Your task to perform on an android device: Go to Amazon Image 0: 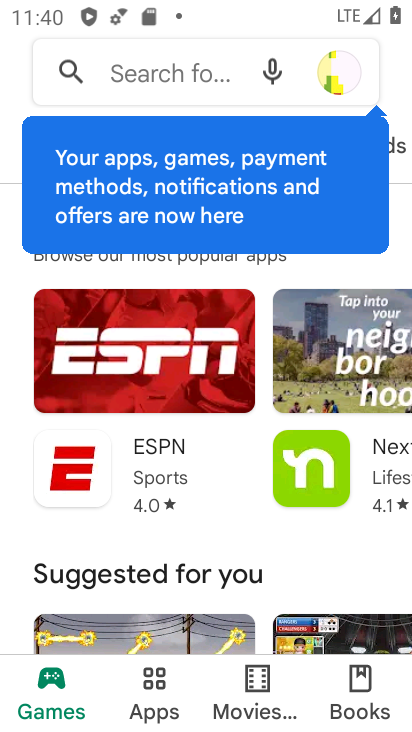
Step 0: press home button
Your task to perform on an android device: Go to Amazon Image 1: 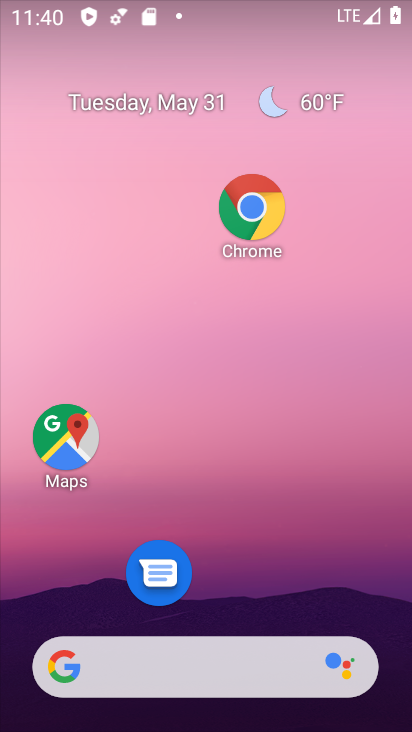
Step 1: click (273, 217)
Your task to perform on an android device: Go to Amazon Image 2: 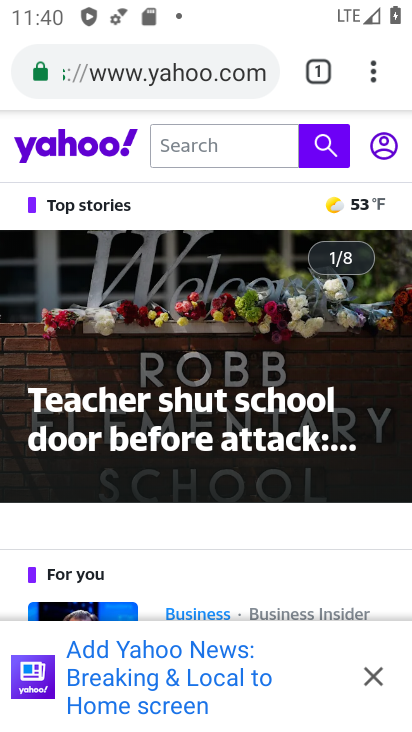
Step 2: click (326, 80)
Your task to perform on an android device: Go to Amazon Image 3: 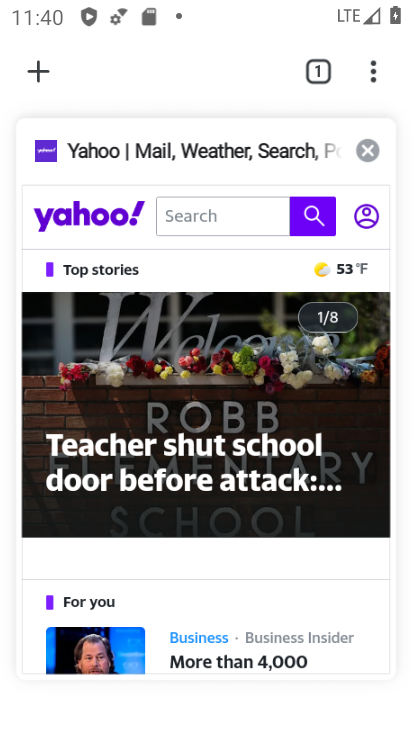
Step 3: click (40, 67)
Your task to perform on an android device: Go to Amazon Image 4: 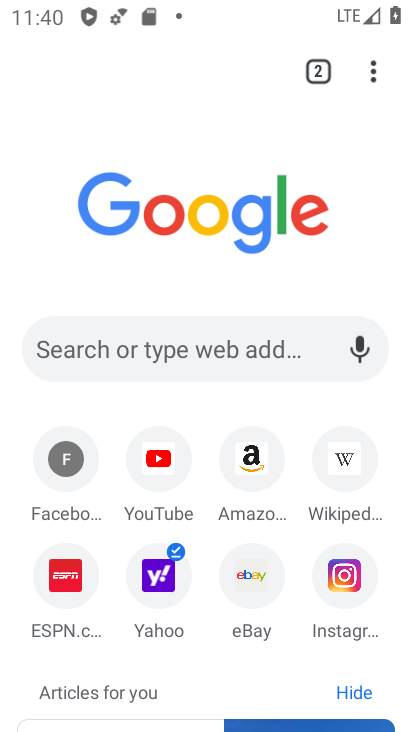
Step 4: click (249, 478)
Your task to perform on an android device: Go to Amazon Image 5: 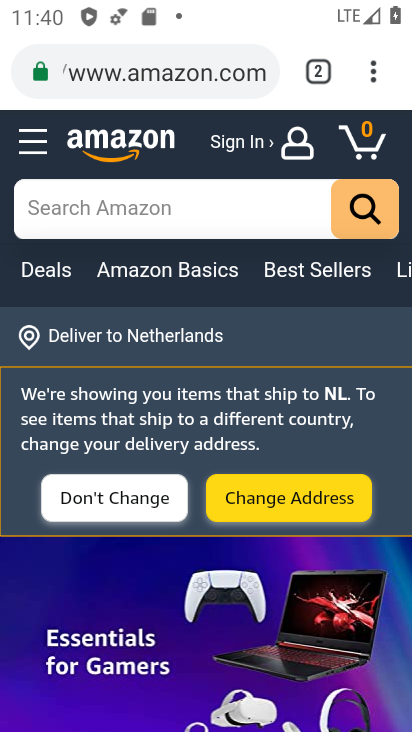
Step 5: task complete